Your task to perform on an android device: install app "LiveIn - Share Your Moment" Image 0: 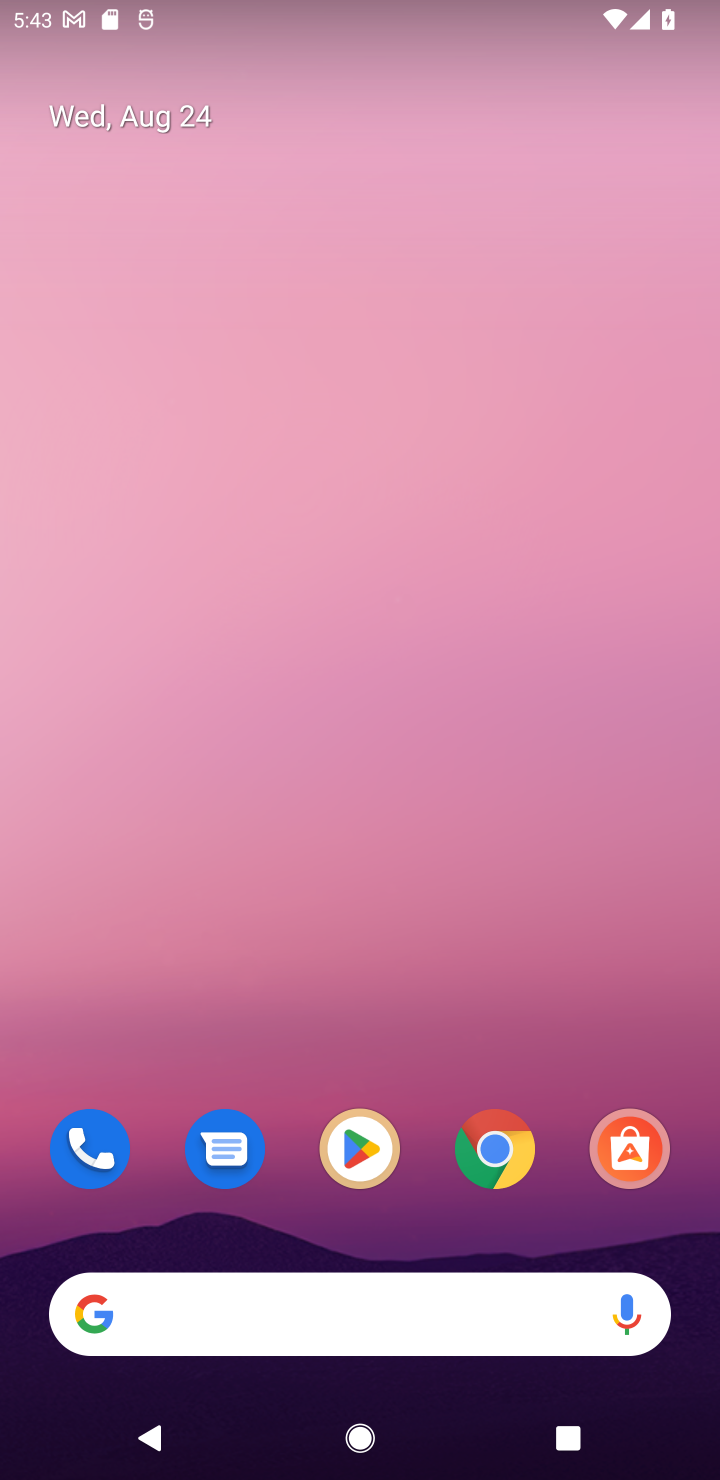
Step 0: click (357, 1146)
Your task to perform on an android device: install app "LiveIn - Share Your Moment" Image 1: 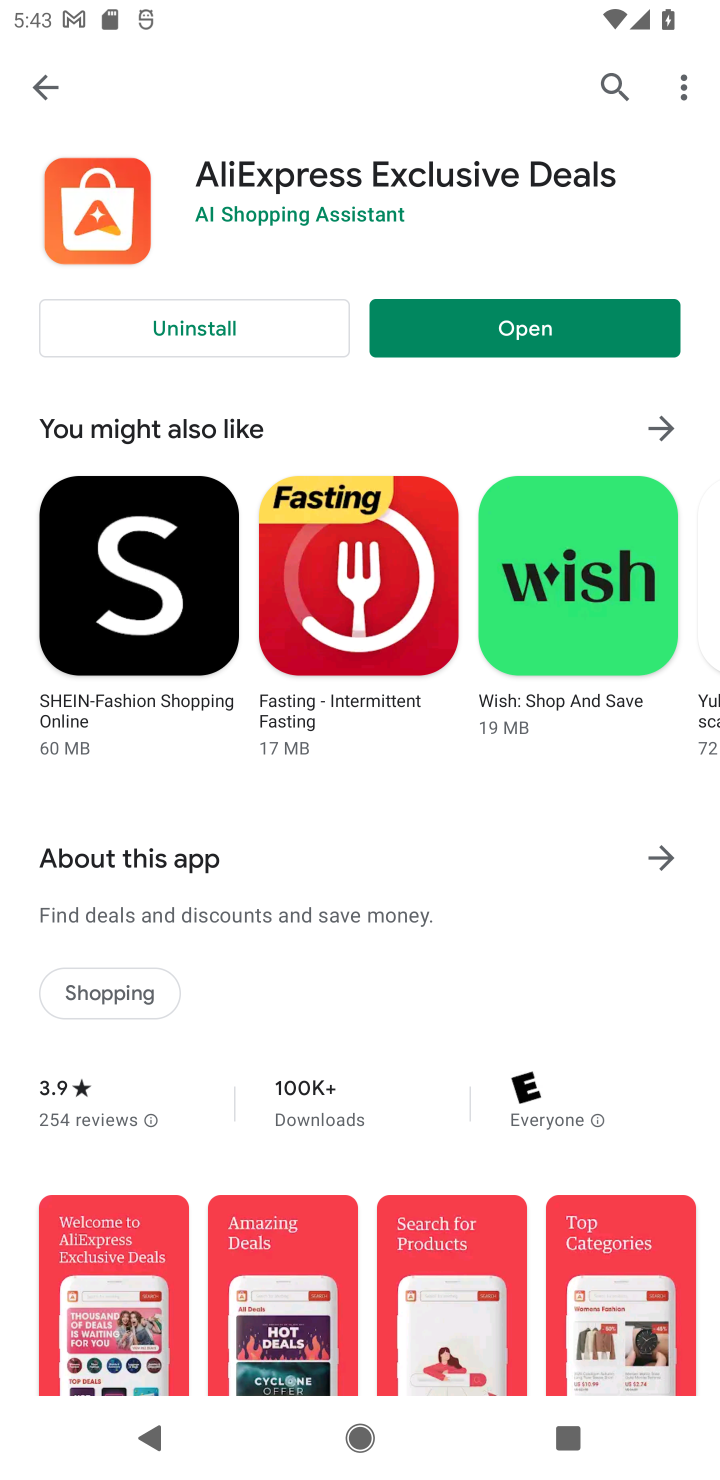
Step 1: click (601, 80)
Your task to perform on an android device: install app "LiveIn - Share Your Moment" Image 2: 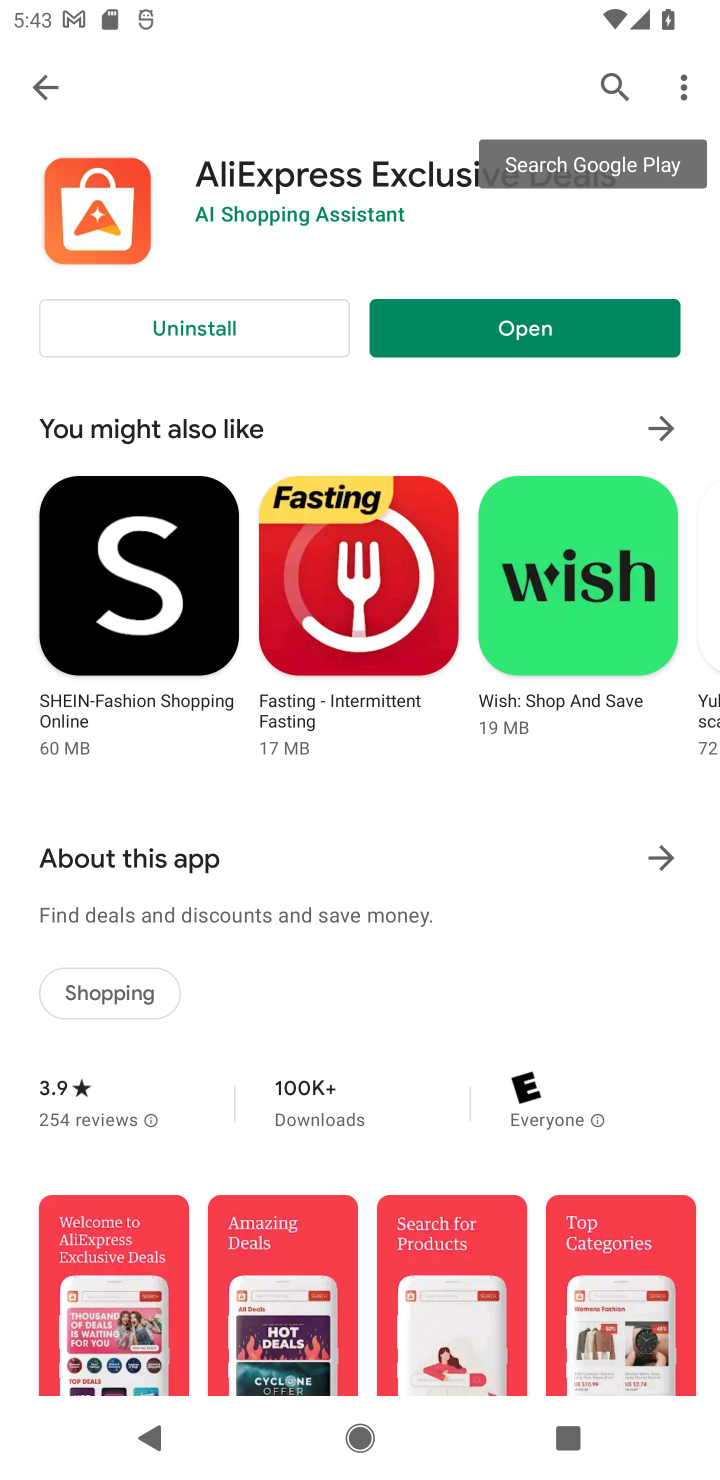
Step 2: click (597, 78)
Your task to perform on an android device: install app "LiveIn - Share Your Moment" Image 3: 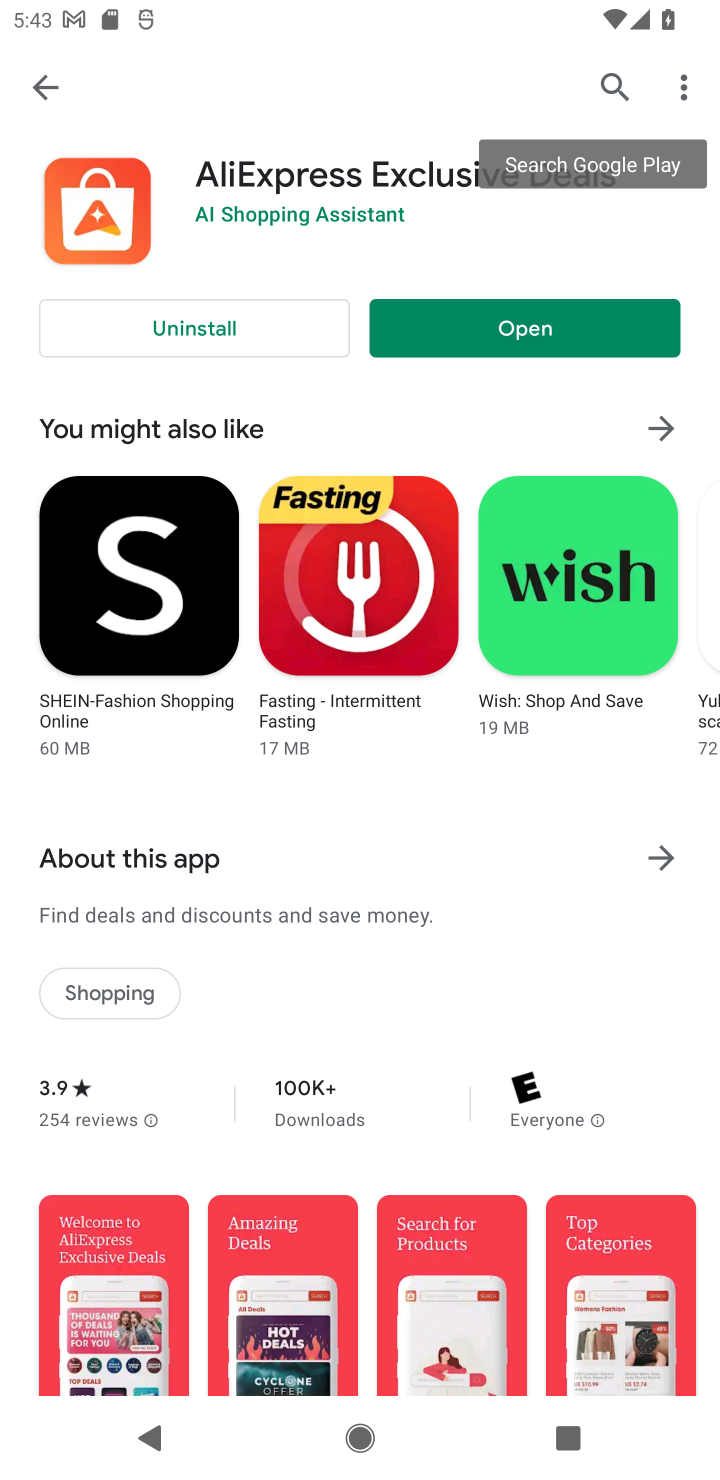
Step 3: click (611, 72)
Your task to perform on an android device: install app "LiveIn - Share Your Moment" Image 4: 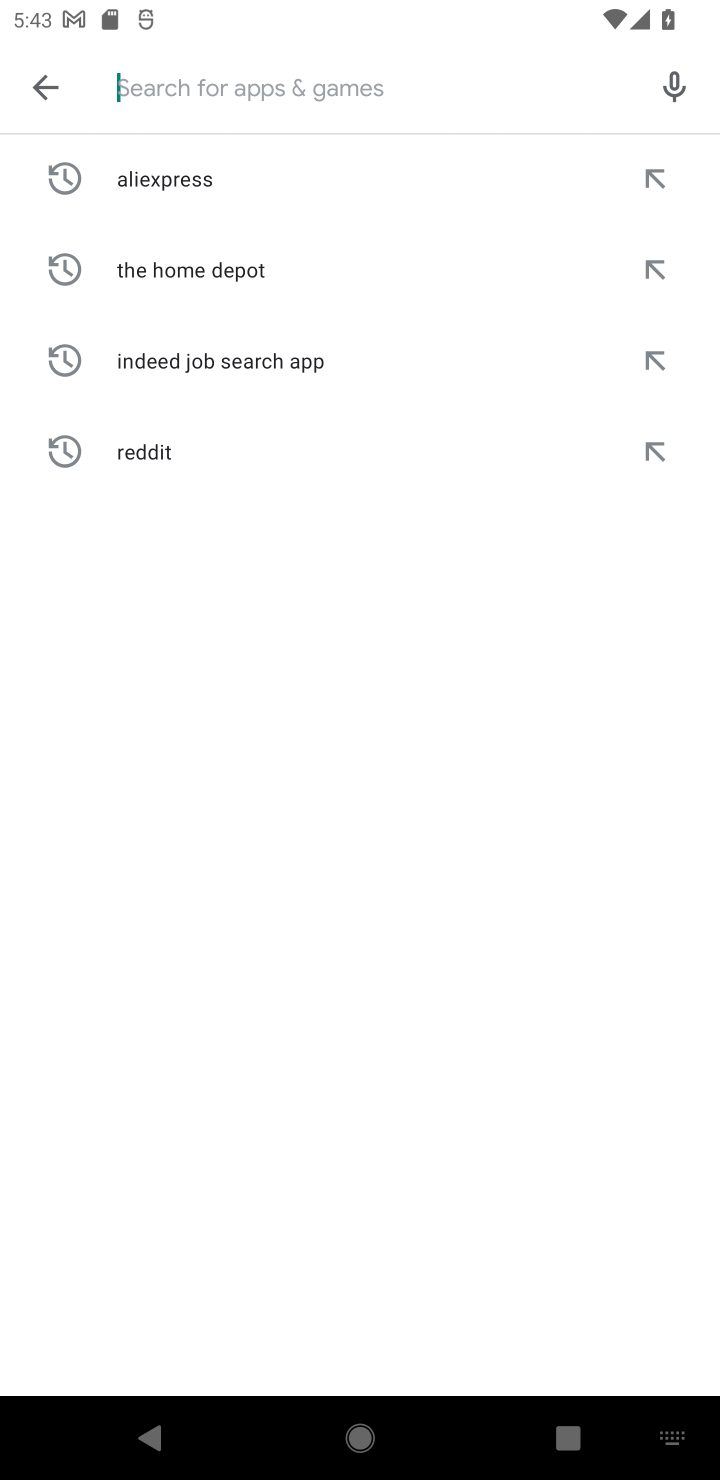
Step 4: type "LiveIn - Share Your Moment"
Your task to perform on an android device: install app "LiveIn - Share Your Moment" Image 5: 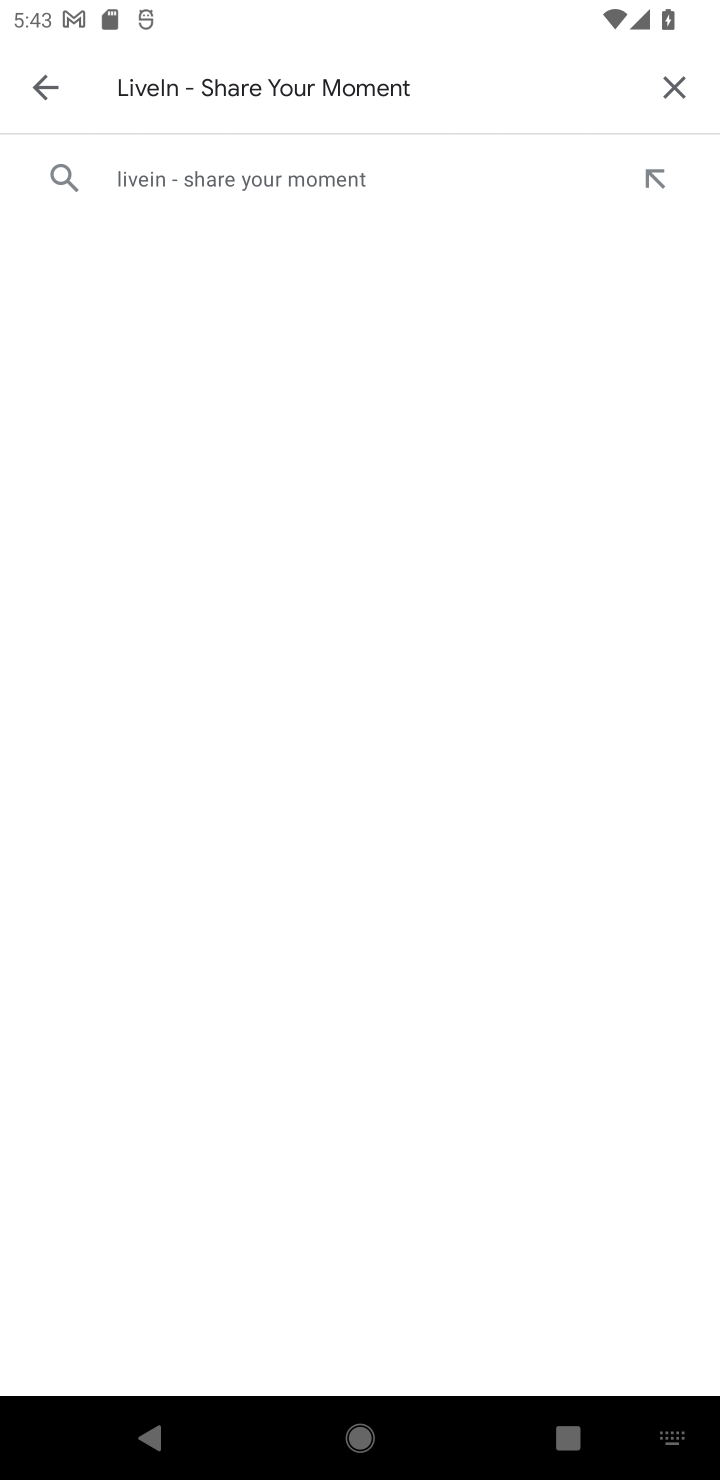
Step 5: click (235, 181)
Your task to perform on an android device: install app "LiveIn - Share Your Moment" Image 6: 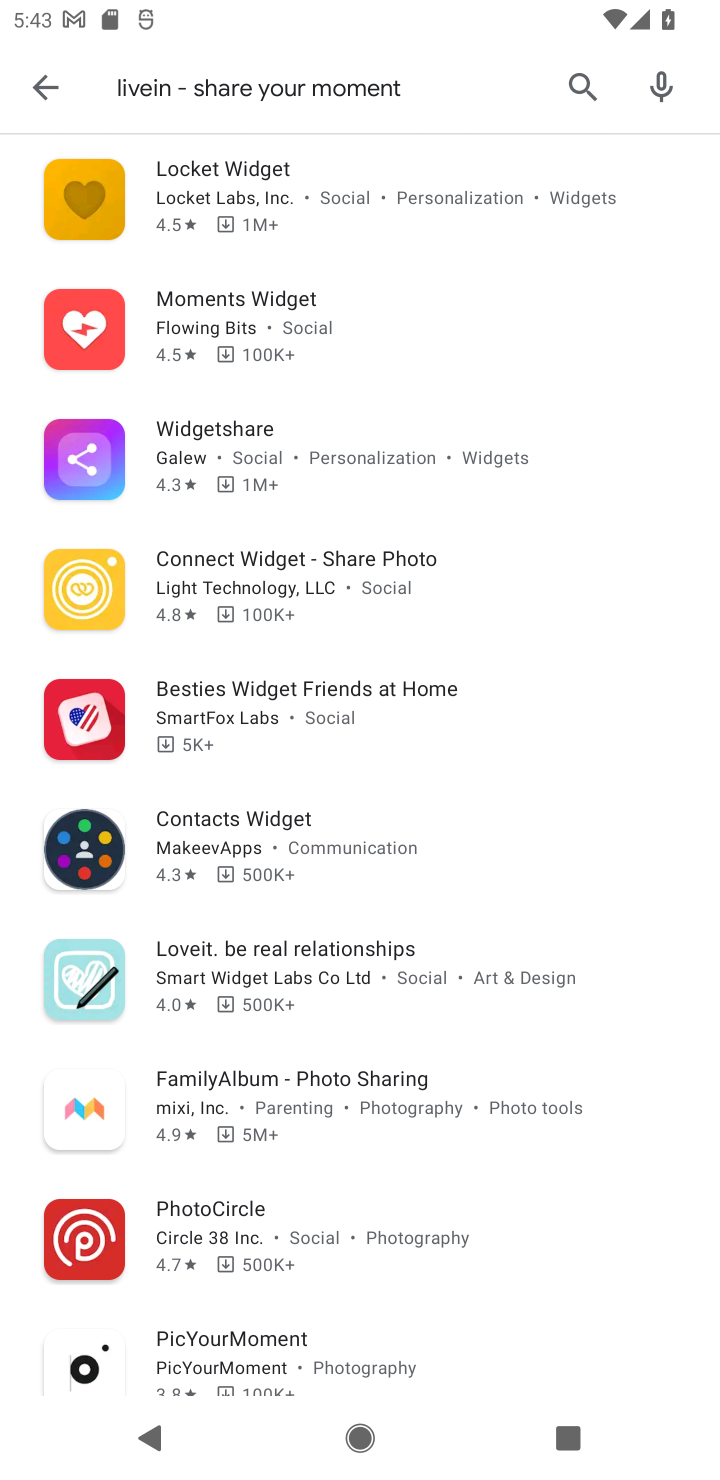
Step 6: task complete